Your task to perform on an android device: Search for good Korean restaurants Image 0: 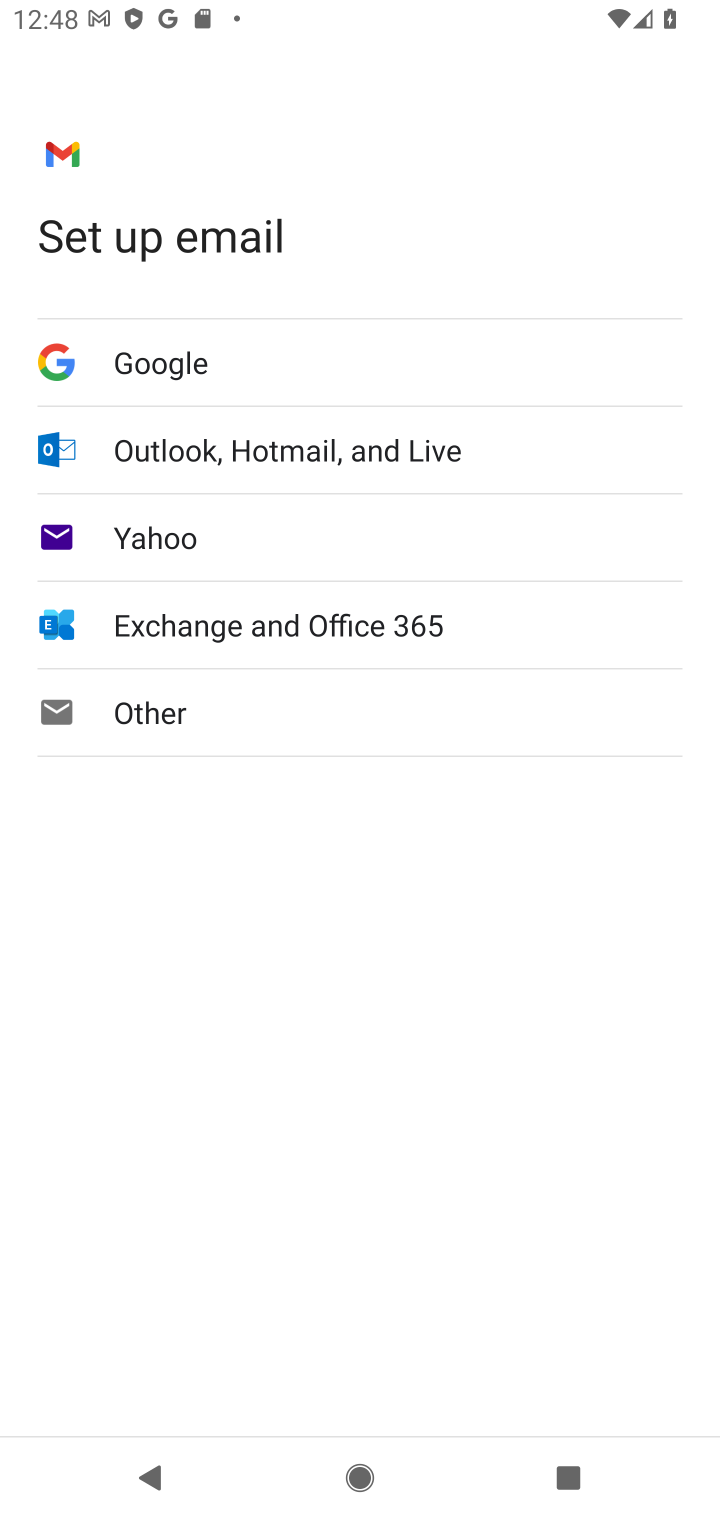
Step 0: press home button
Your task to perform on an android device: Search for good Korean restaurants Image 1: 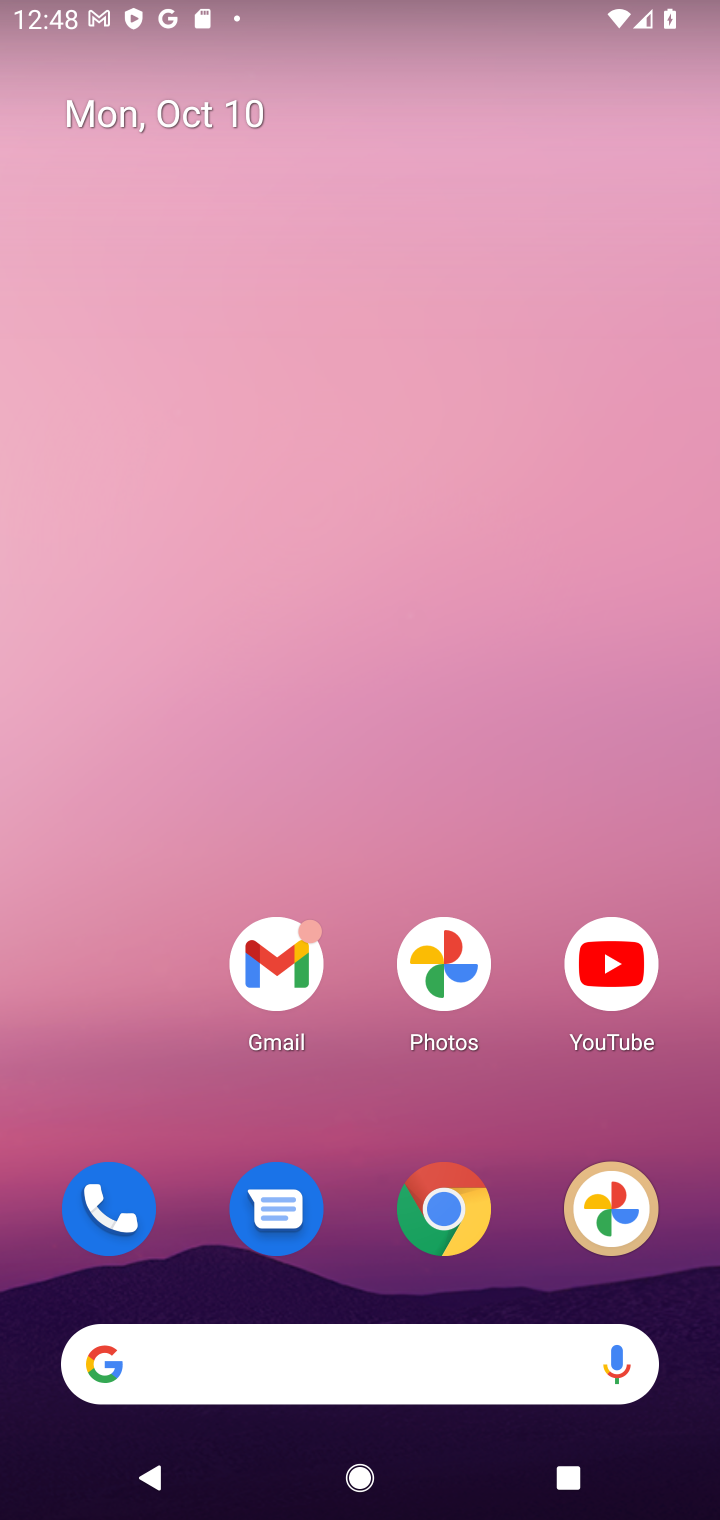
Step 1: drag from (278, 1246) to (355, 406)
Your task to perform on an android device: Search for good Korean restaurants Image 2: 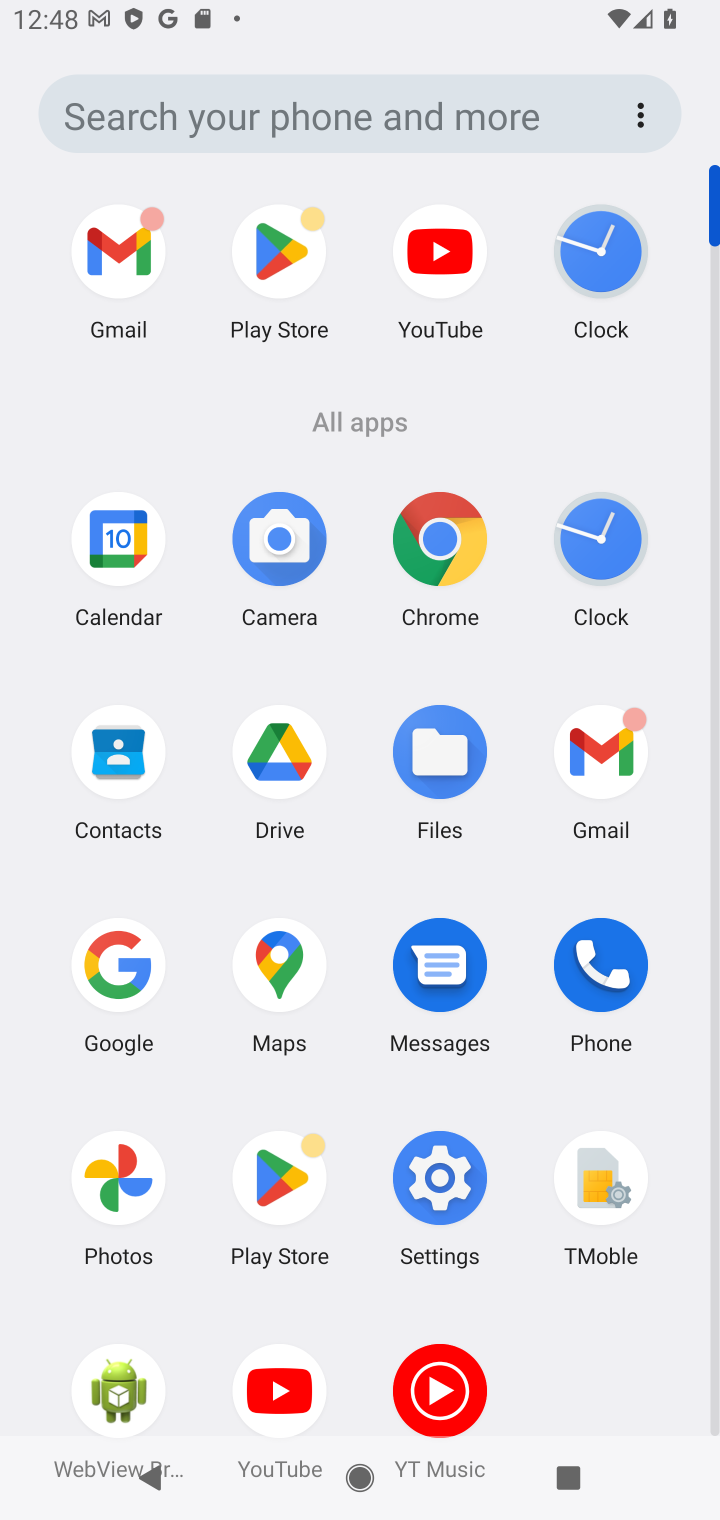
Step 2: click (119, 958)
Your task to perform on an android device: Search for good Korean restaurants Image 3: 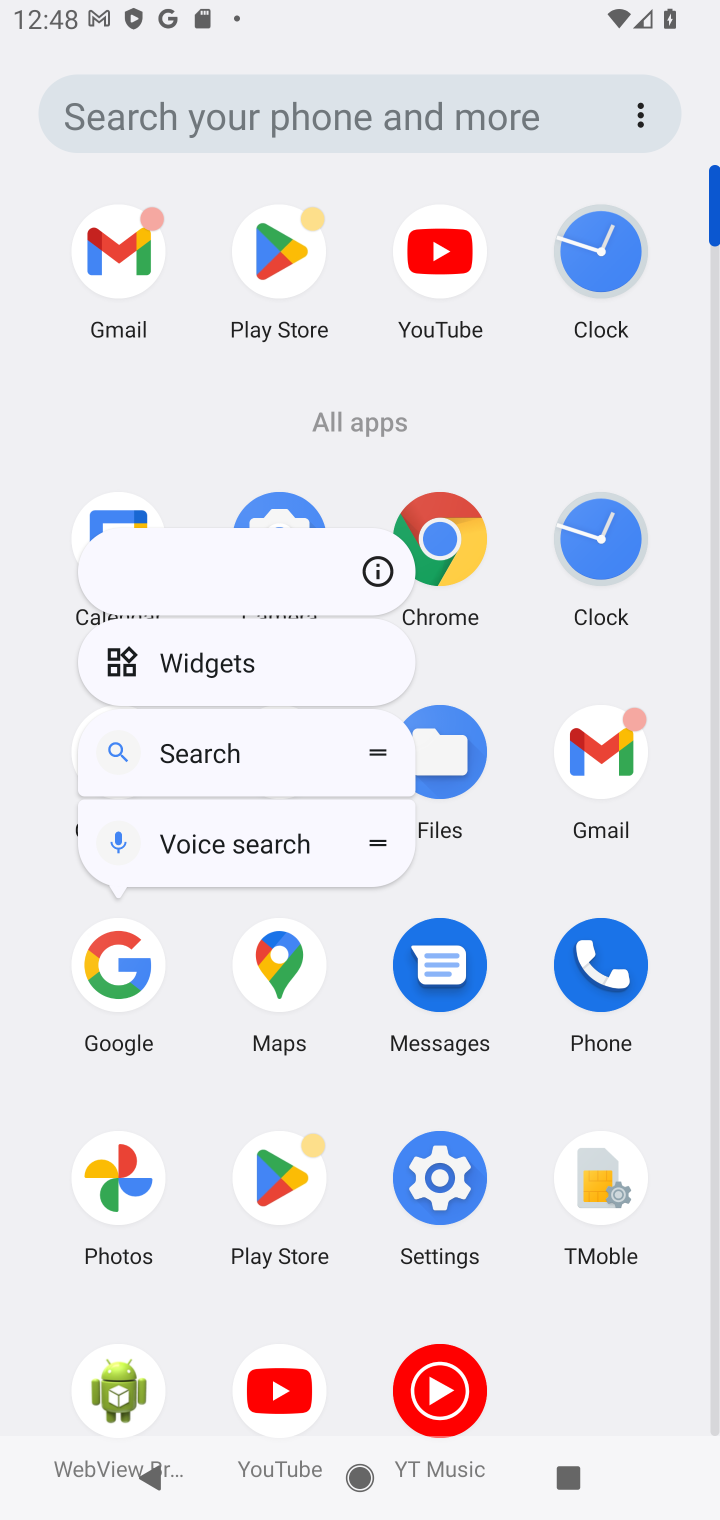
Step 3: click (95, 978)
Your task to perform on an android device: Search for good Korean restaurants Image 4: 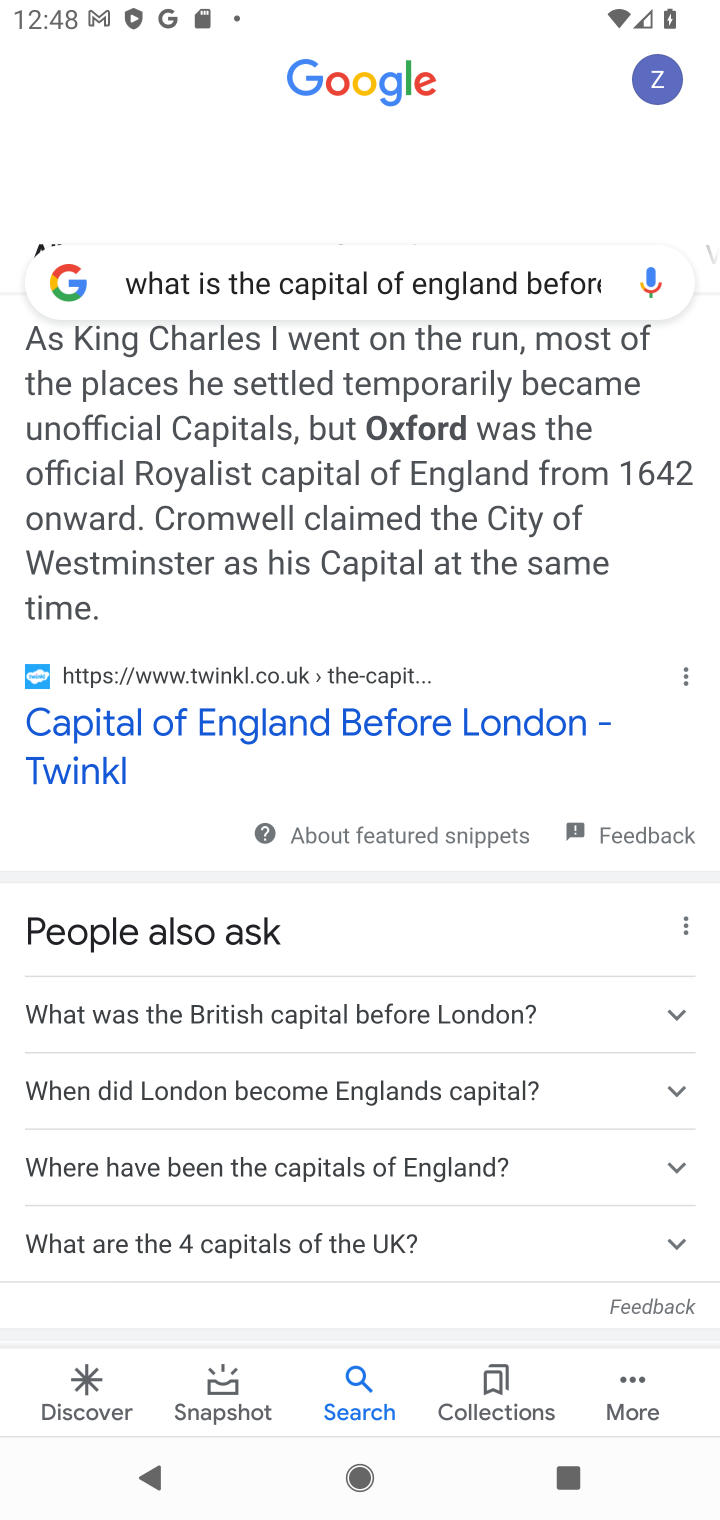
Step 4: click (180, 277)
Your task to perform on an android device: Search for good Korean restaurants Image 5: 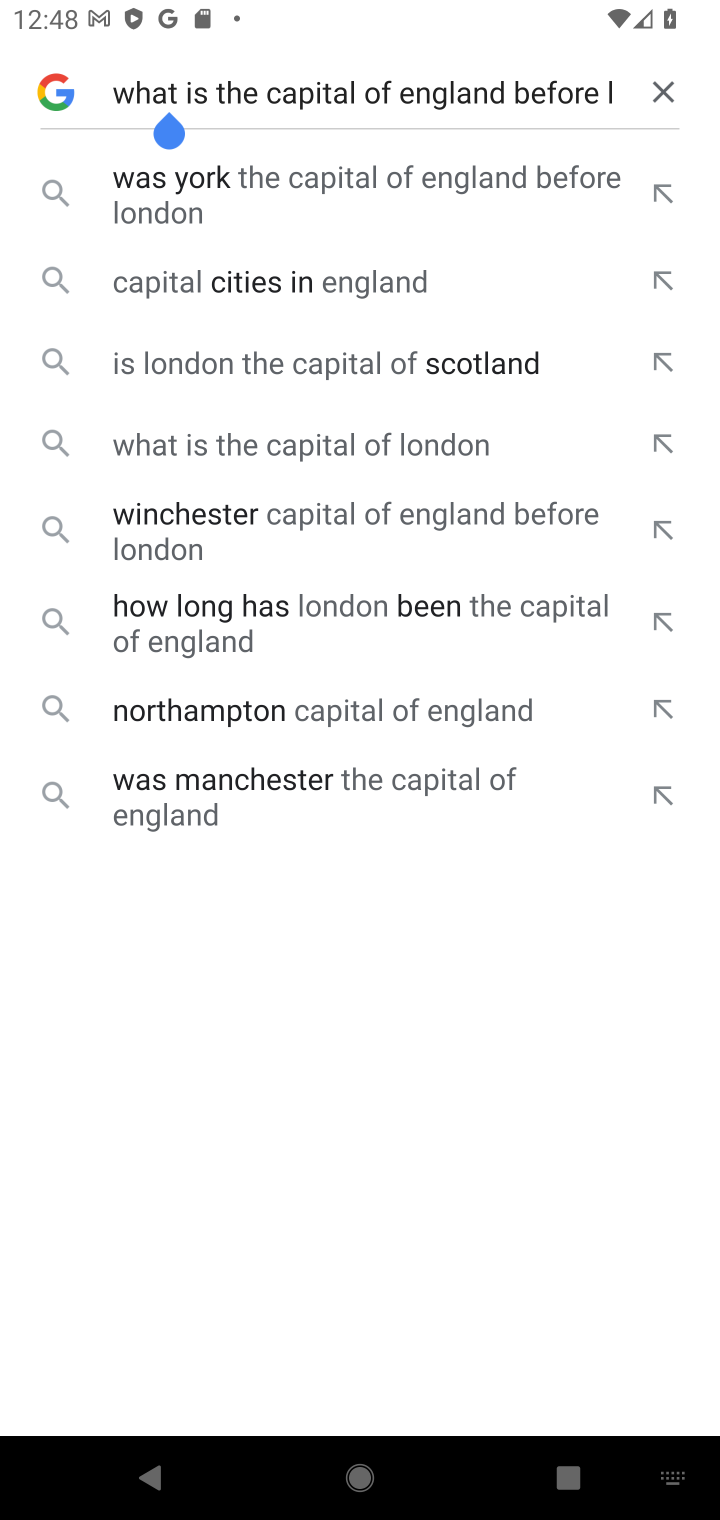
Step 5: click (651, 106)
Your task to perform on an android device: Search for good Korean restaurants Image 6: 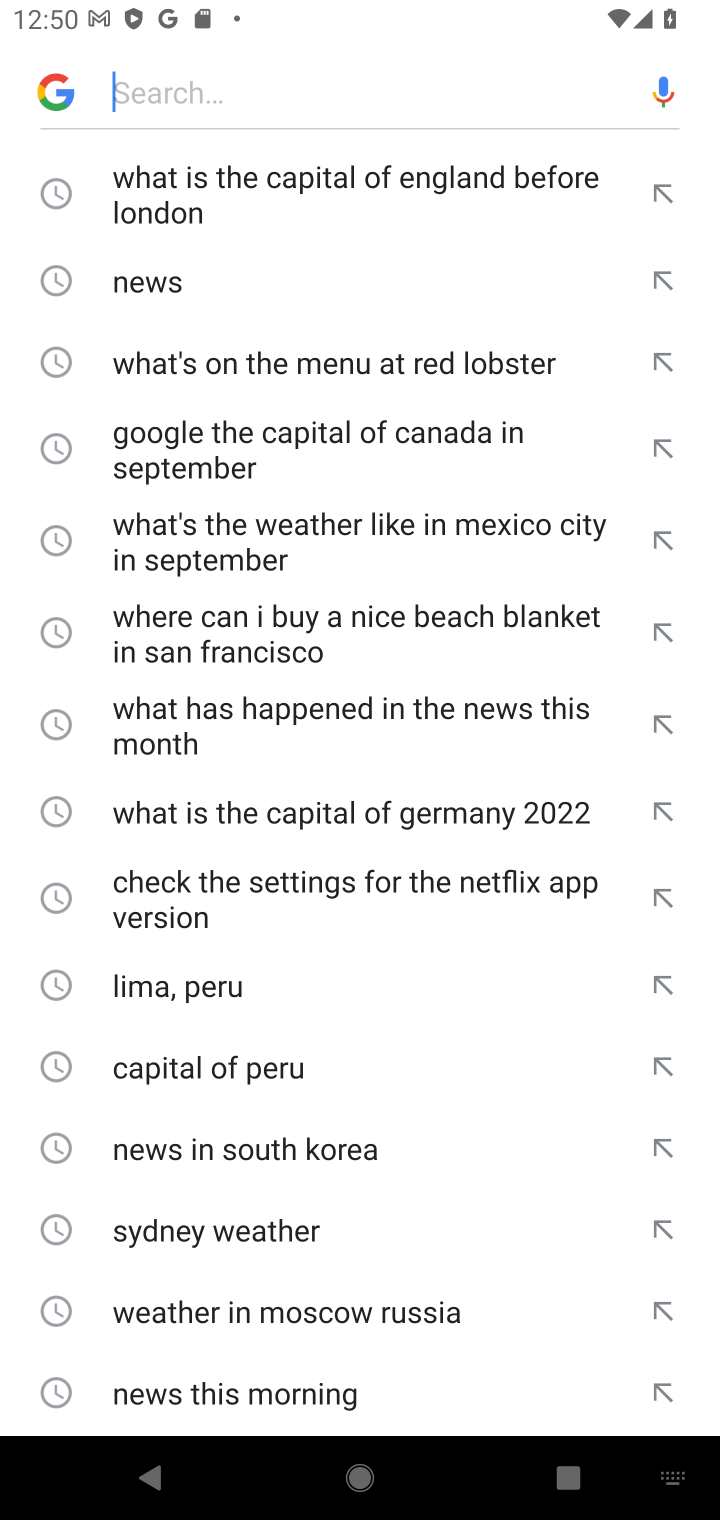
Step 6: type "Search for good Korean restaurants"
Your task to perform on an android device: Search for good Korean restaurants Image 7: 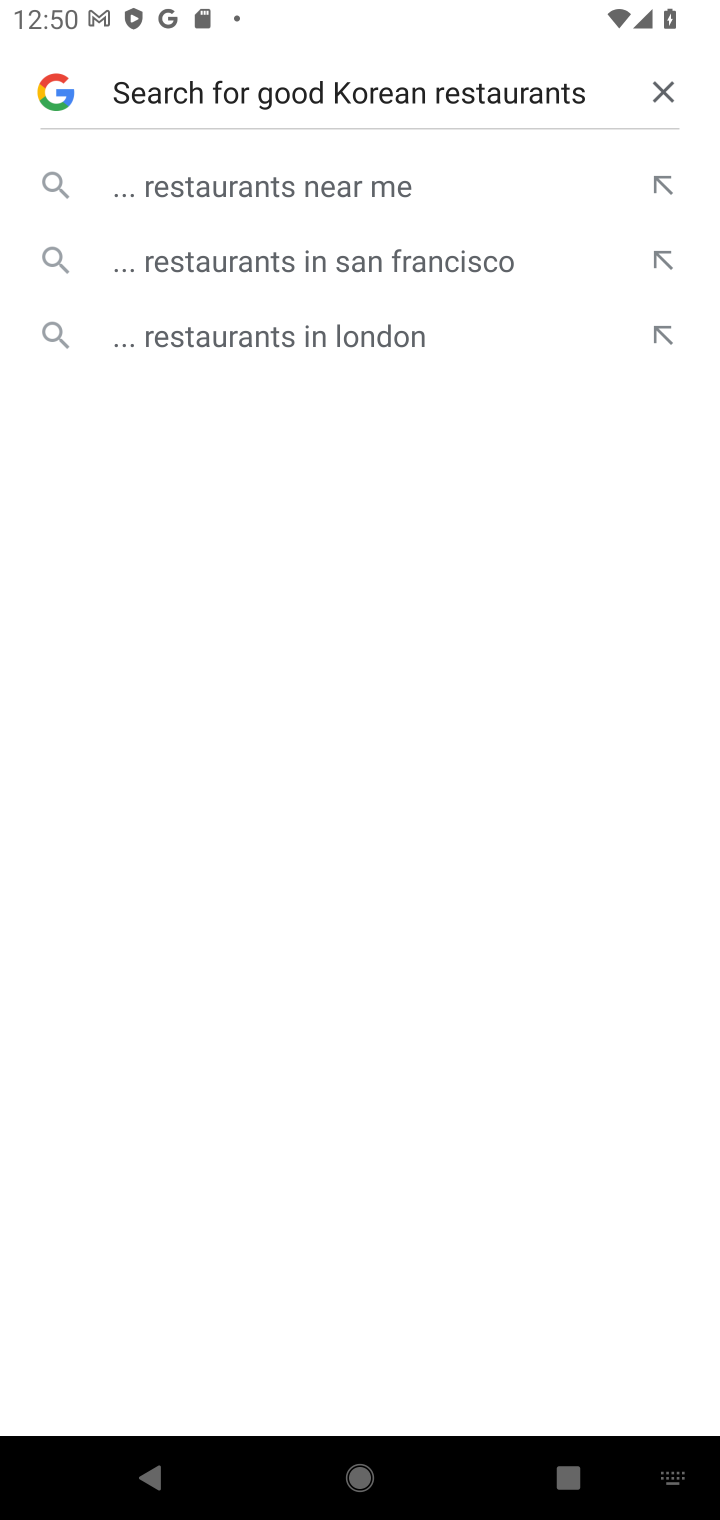
Step 7: click (184, 194)
Your task to perform on an android device: Search for good Korean restaurants Image 8: 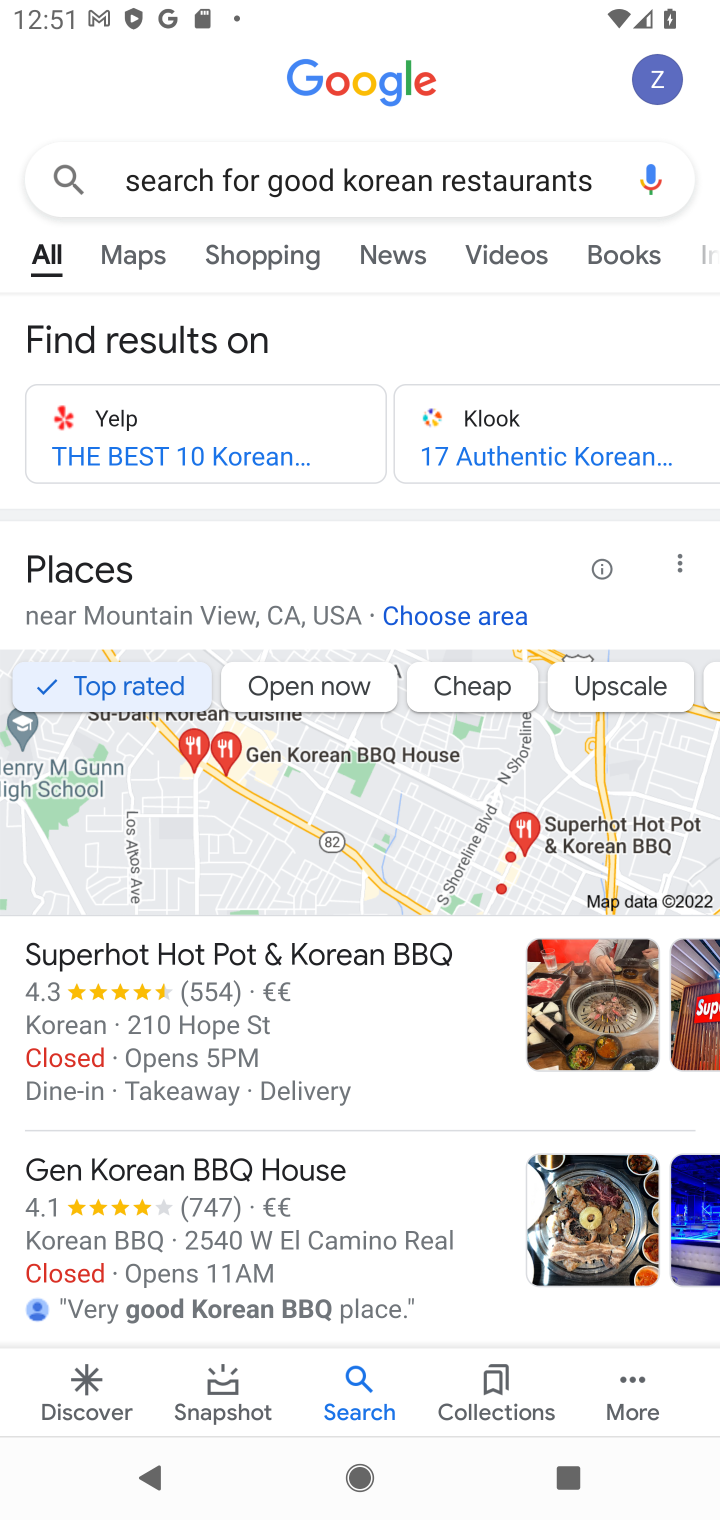
Step 8: task complete